Your task to perform on an android device: Go to eBay Image 0: 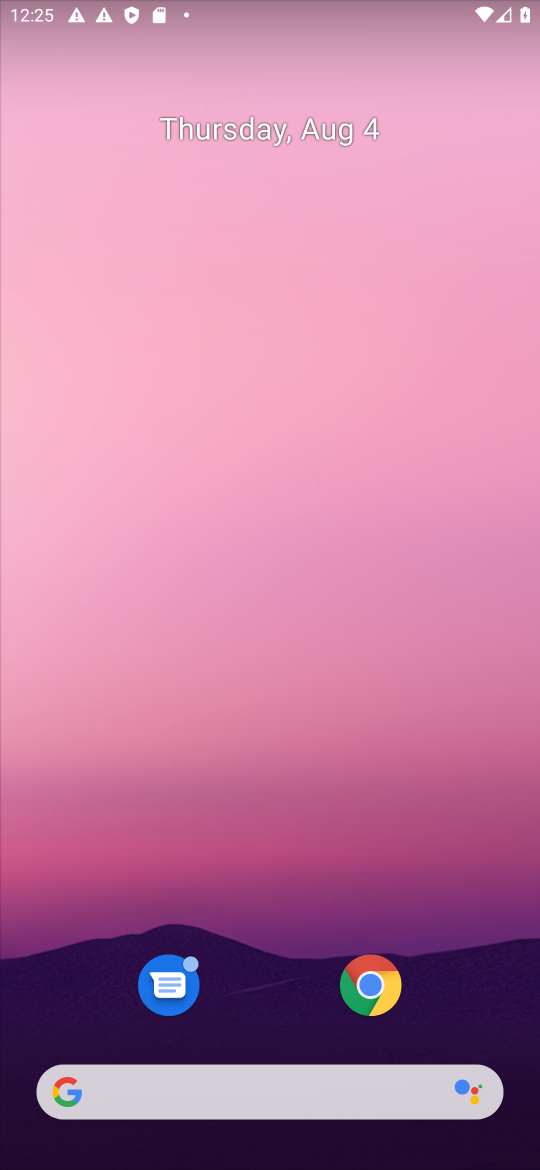
Step 0: click (282, 888)
Your task to perform on an android device: Go to eBay Image 1: 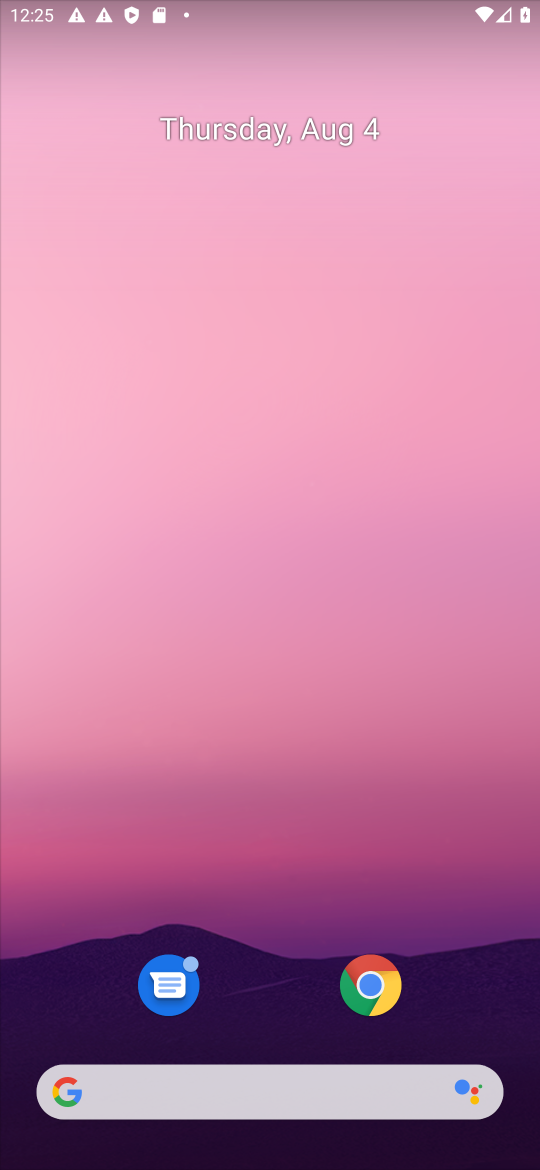
Step 1: click (371, 991)
Your task to perform on an android device: Go to eBay Image 2: 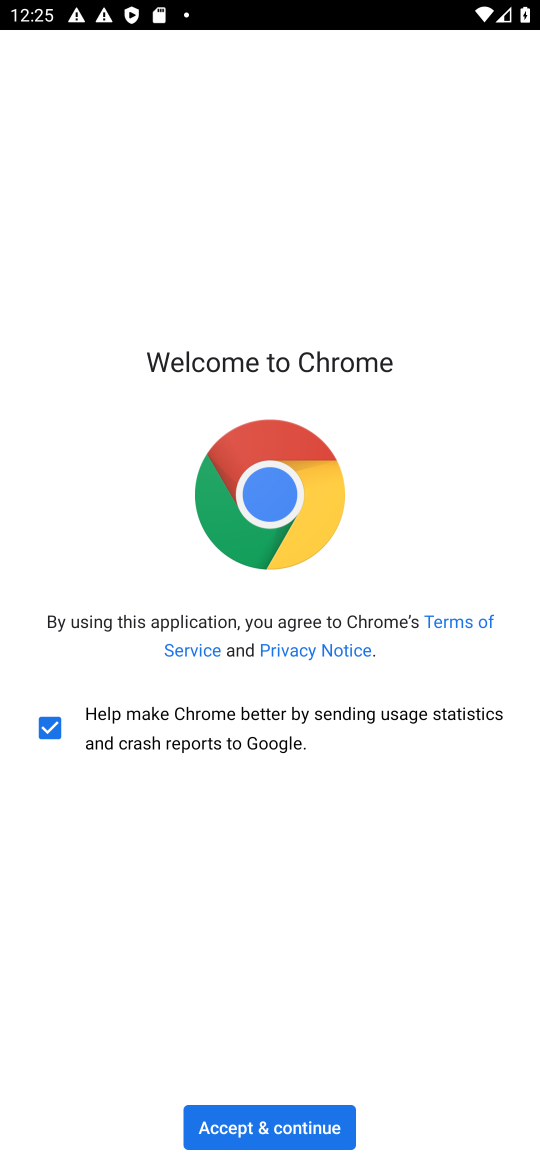
Step 2: click (277, 1122)
Your task to perform on an android device: Go to eBay Image 3: 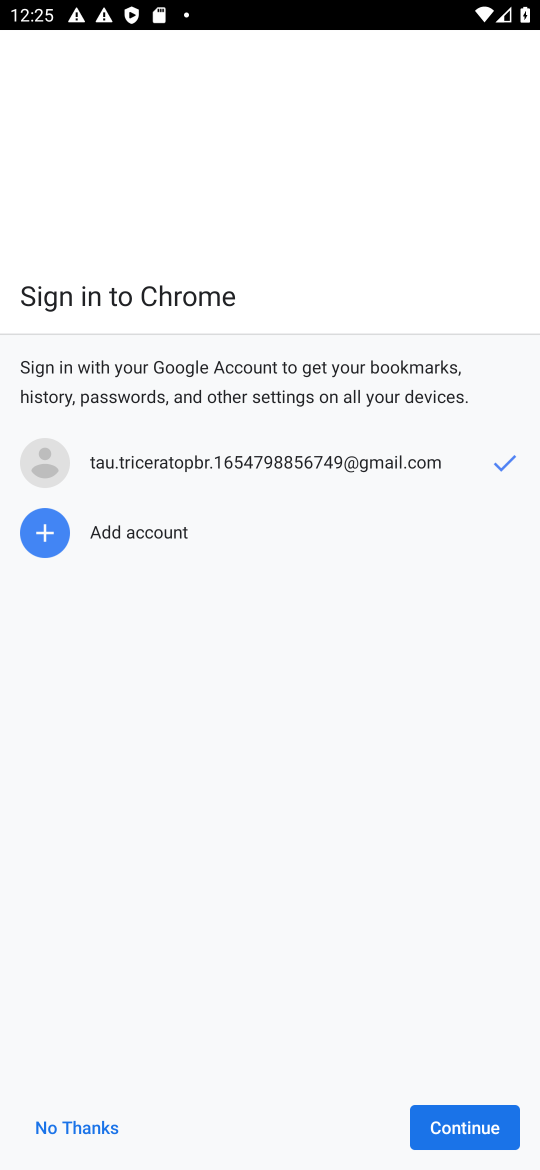
Step 3: click (446, 1138)
Your task to perform on an android device: Go to eBay Image 4: 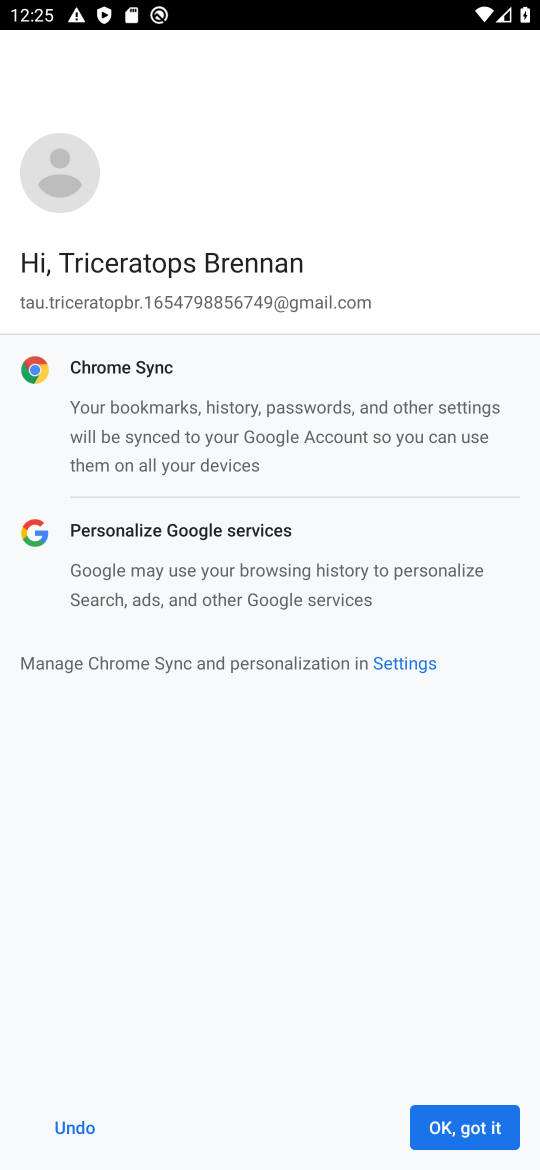
Step 4: click (464, 1113)
Your task to perform on an android device: Go to eBay Image 5: 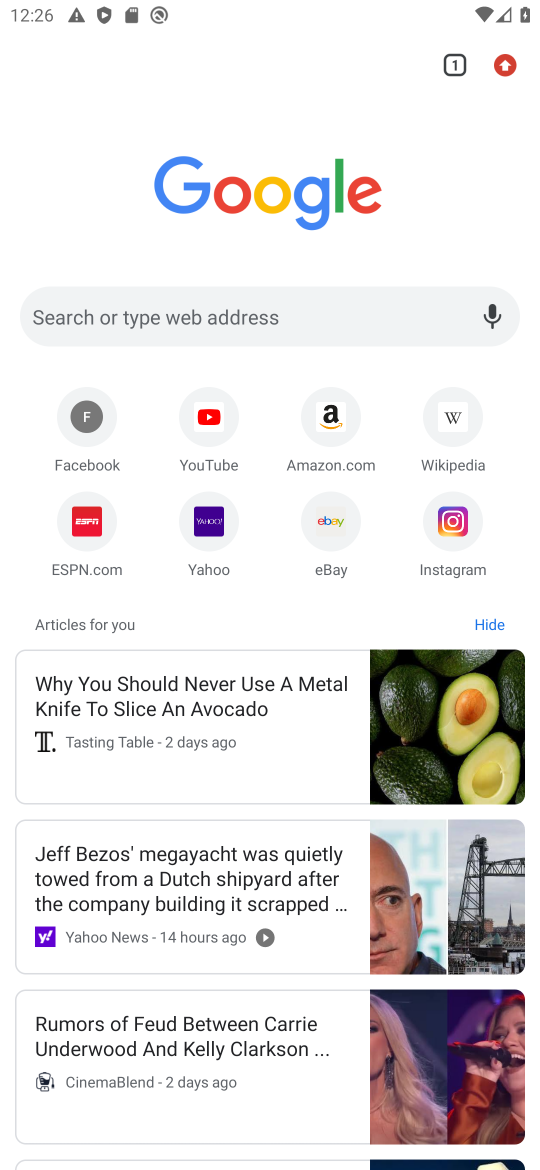
Step 5: click (322, 523)
Your task to perform on an android device: Go to eBay Image 6: 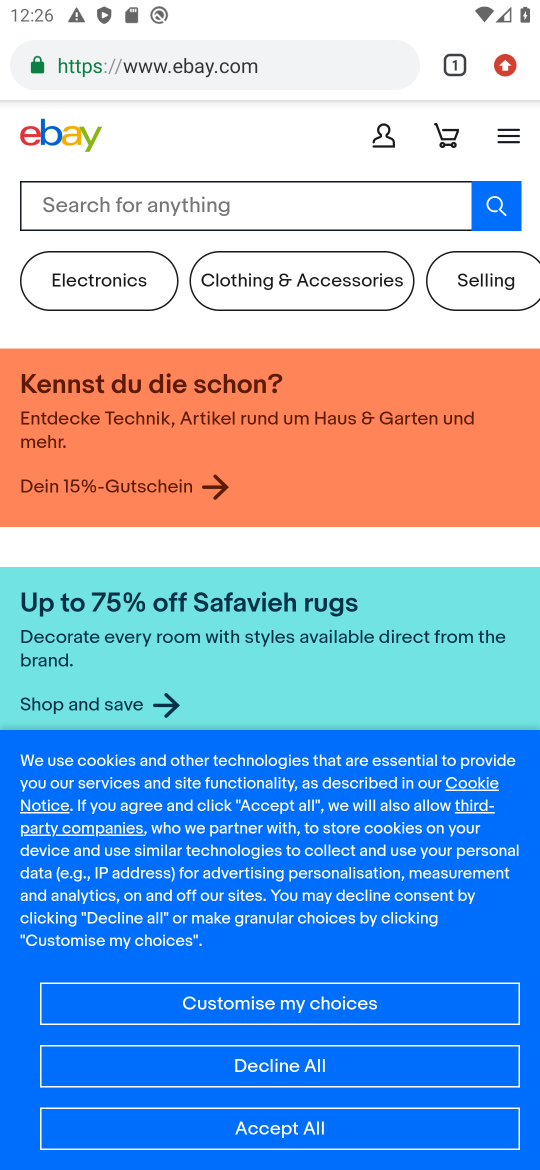
Step 6: task complete